Your task to perform on an android device: check google app version Image 0: 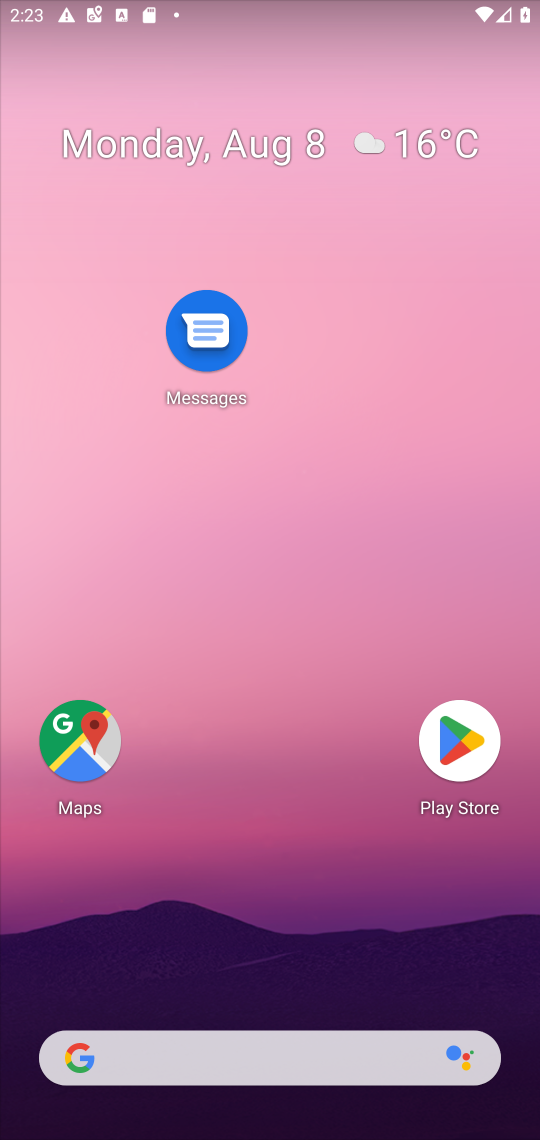
Step 0: drag from (295, 823) to (498, 37)
Your task to perform on an android device: check google app version Image 1: 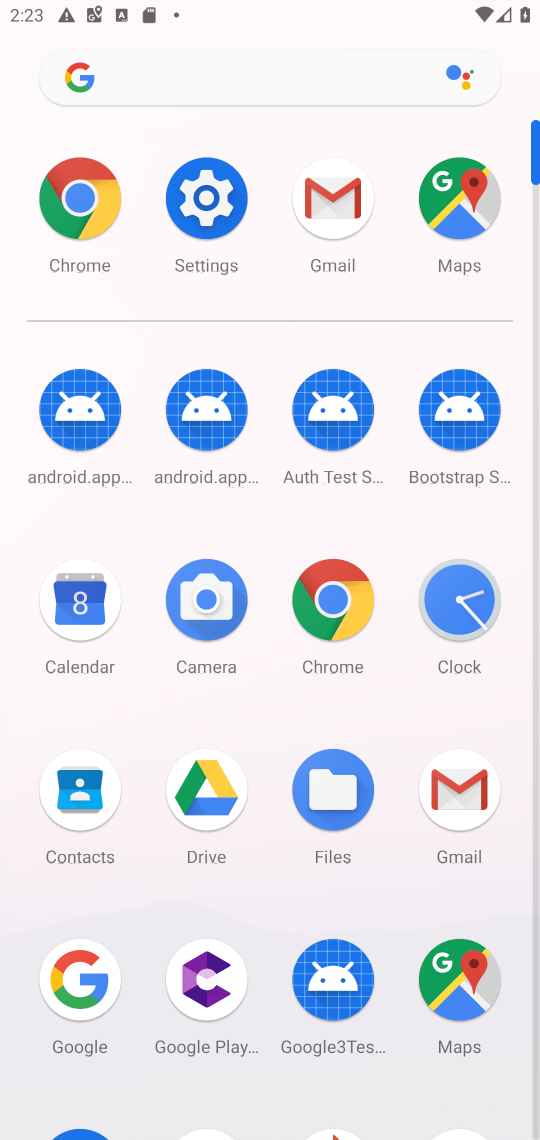
Step 1: click (219, 184)
Your task to perform on an android device: check google app version Image 2: 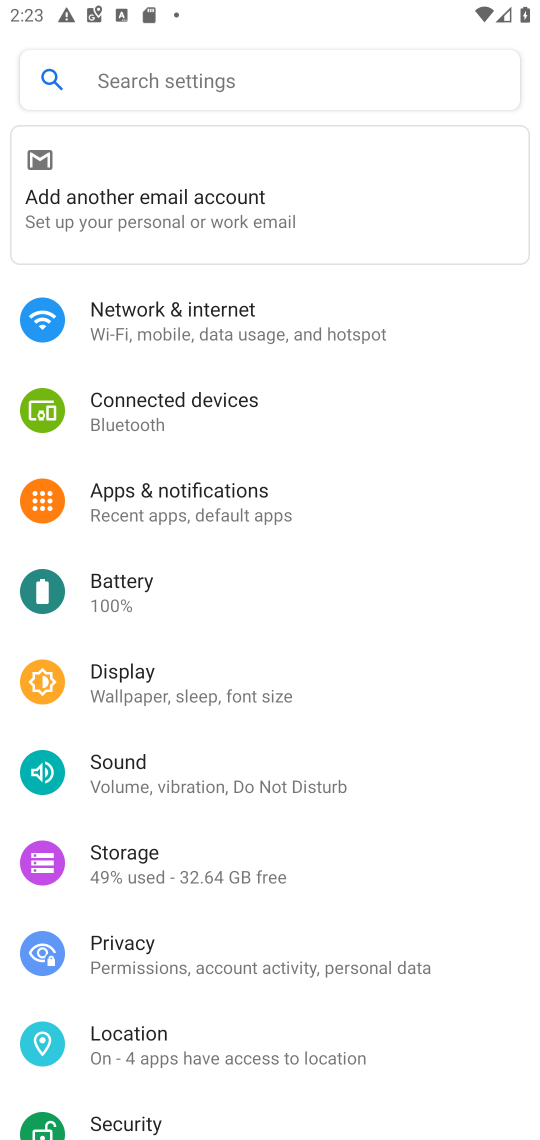
Step 2: press home button
Your task to perform on an android device: check google app version Image 3: 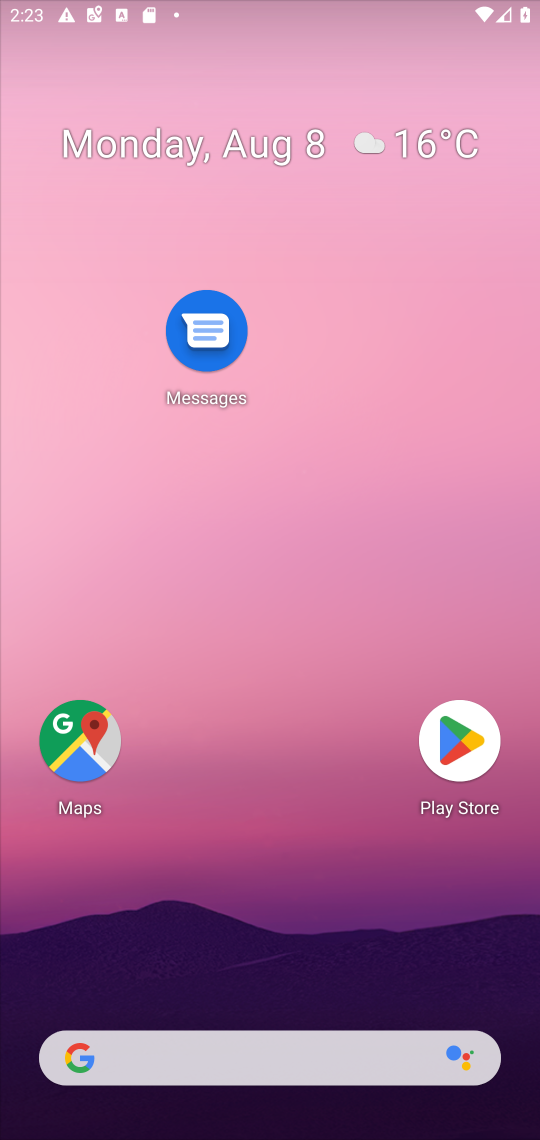
Step 3: drag from (322, 1069) to (359, 158)
Your task to perform on an android device: check google app version Image 4: 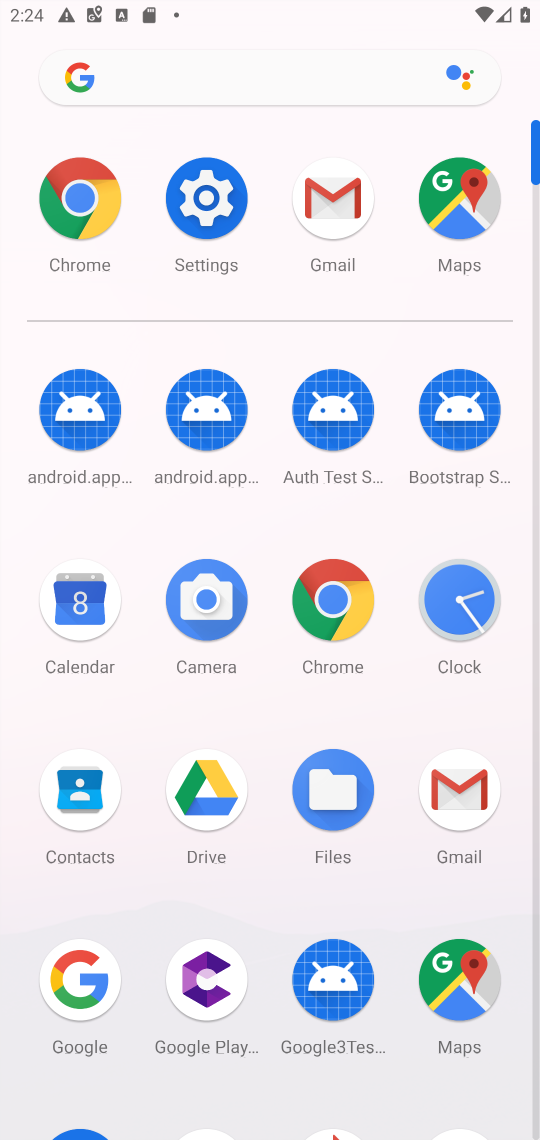
Step 4: click (85, 970)
Your task to perform on an android device: check google app version Image 5: 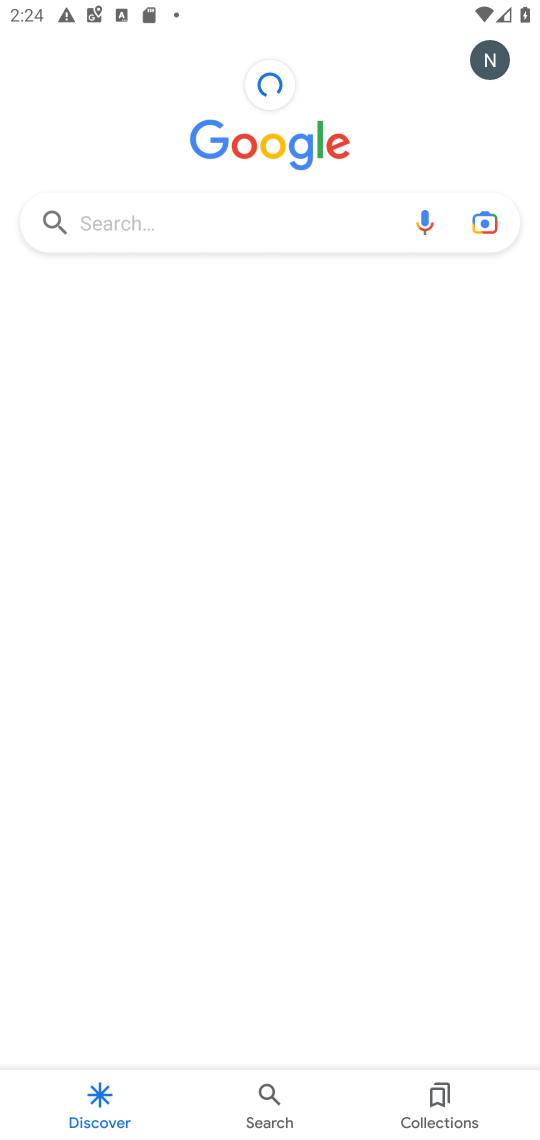
Step 5: click (483, 52)
Your task to perform on an android device: check google app version Image 6: 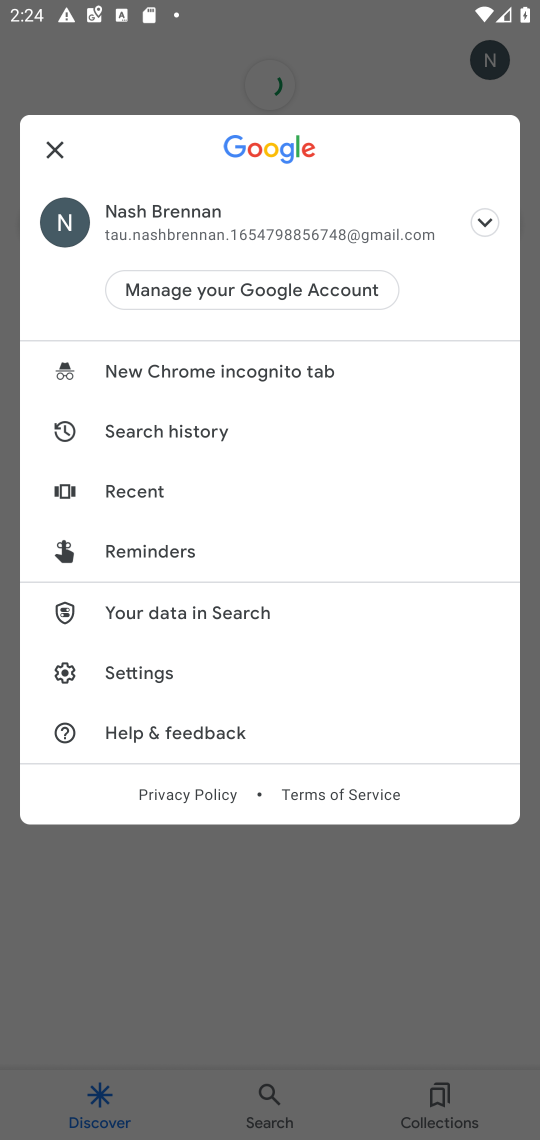
Step 6: click (218, 730)
Your task to perform on an android device: check google app version Image 7: 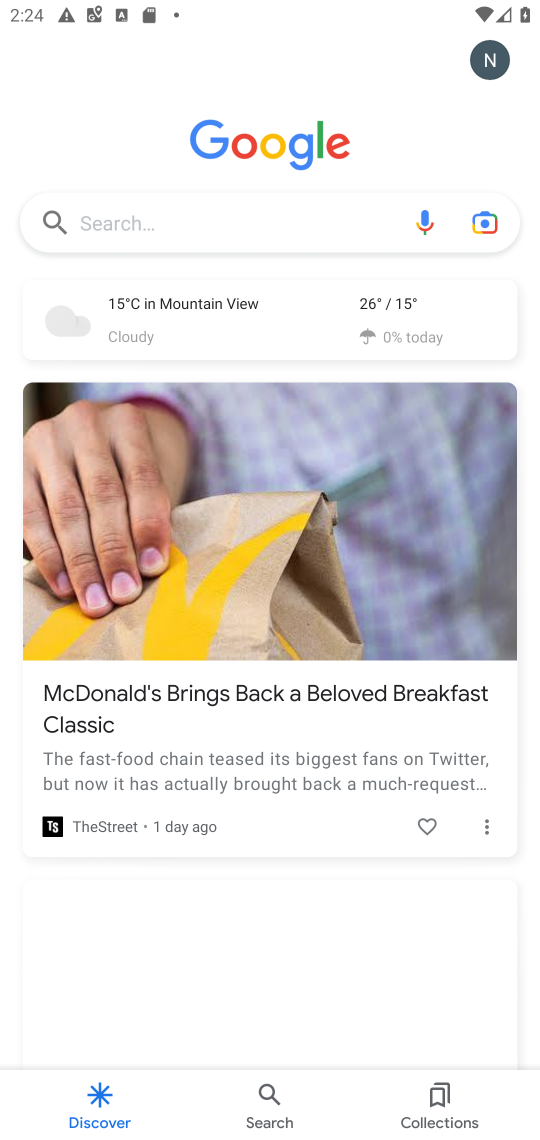
Step 7: click (503, 59)
Your task to perform on an android device: check google app version Image 8: 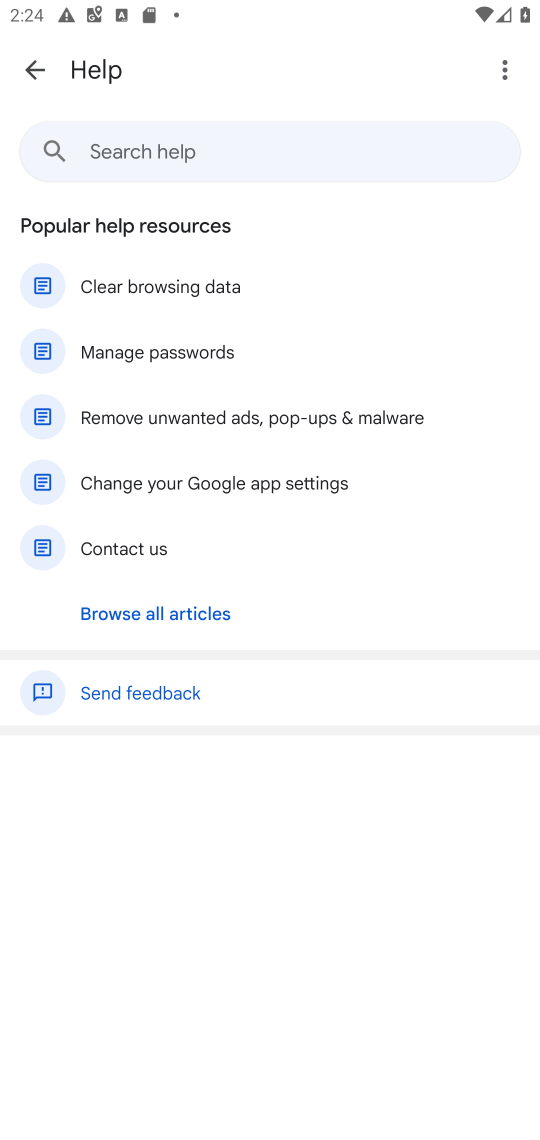
Step 8: click (499, 63)
Your task to perform on an android device: check google app version Image 9: 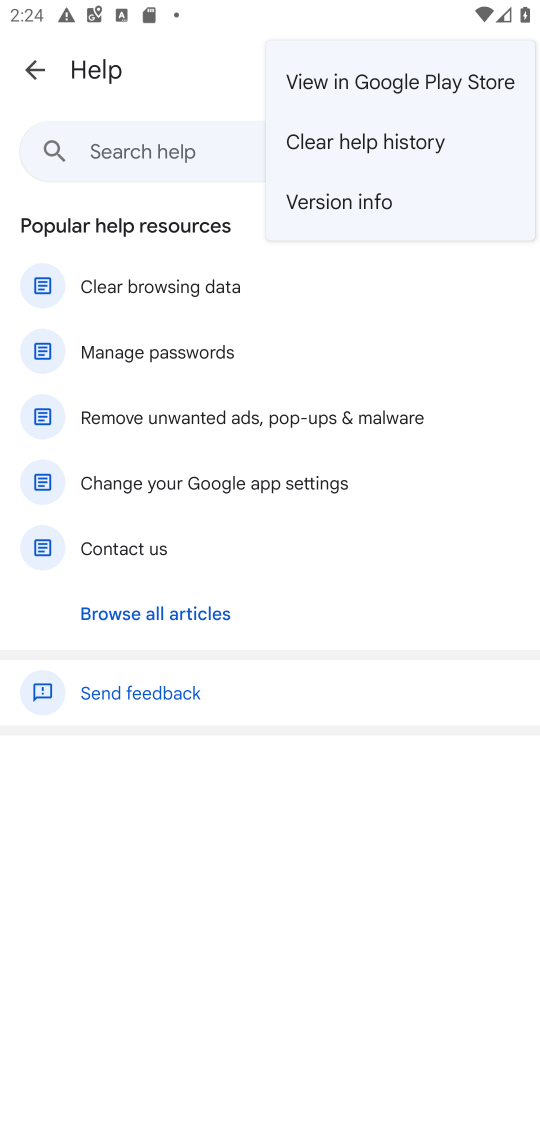
Step 9: click (304, 196)
Your task to perform on an android device: check google app version Image 10: 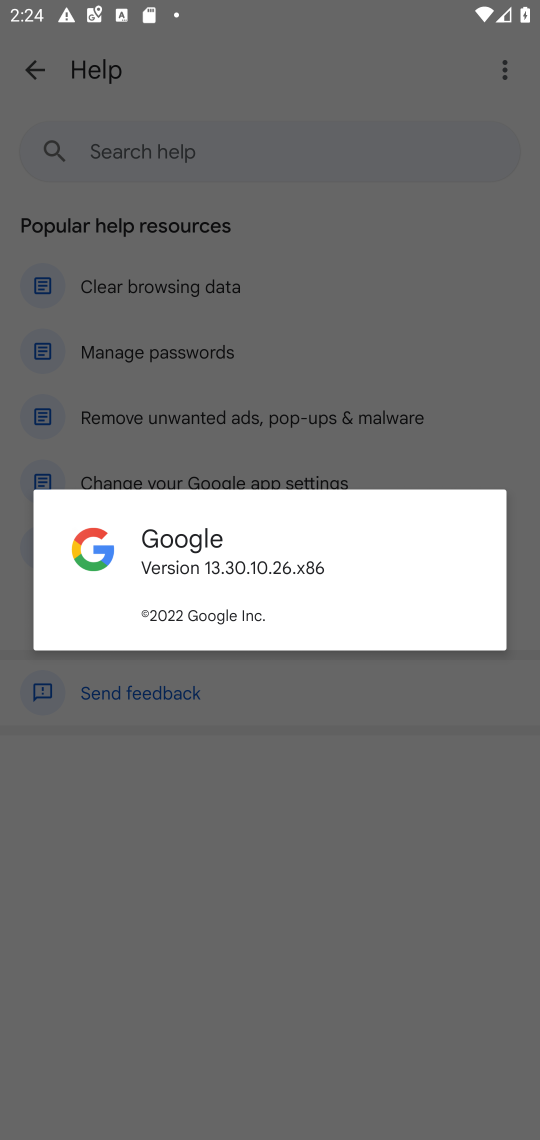
Step 10: task complete